Your task to perform on an android device: Go to internet settings Image 0: 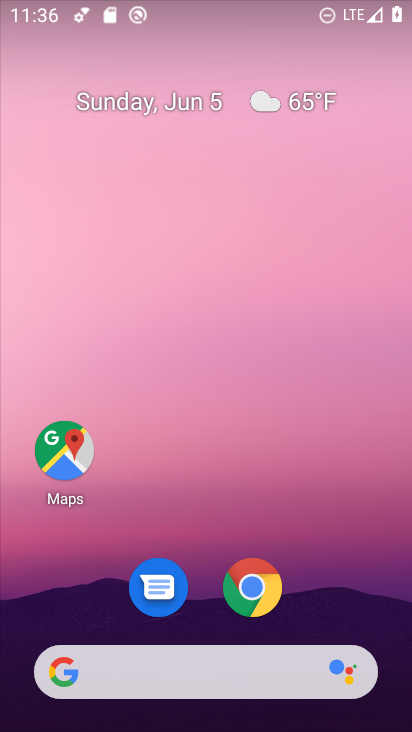
Step 0: drag from (233, 17) to (182, 659)
Your task to perform on an android device: Go to internet settings Image 1: 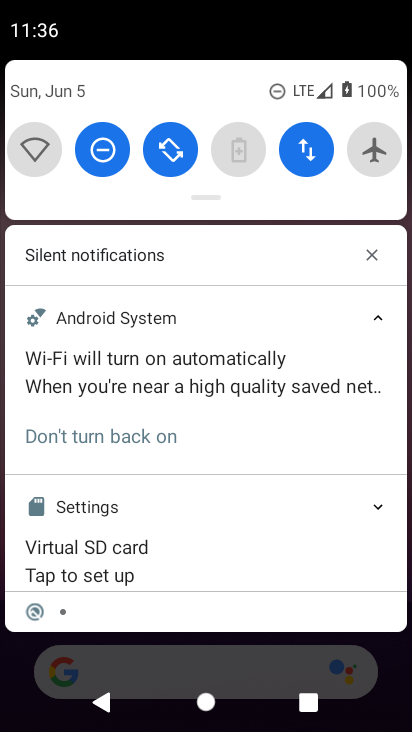
Step 1: click (295, 155)
Your task to perform on an android device: Go to internet settings Image 2: 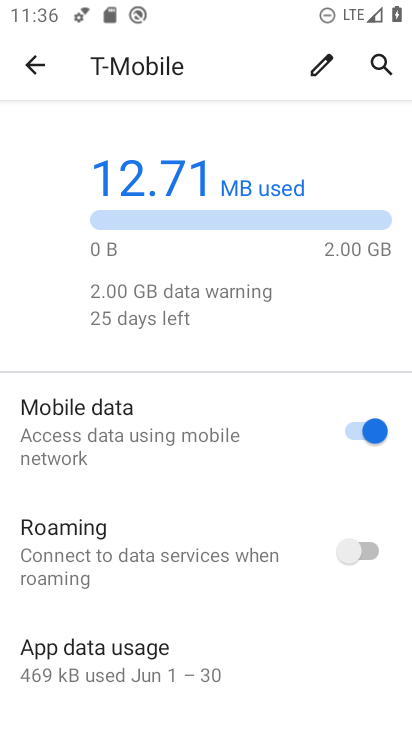
Step 2: task complete